Your task to perform on an android device: Go to Amazon Image 0: 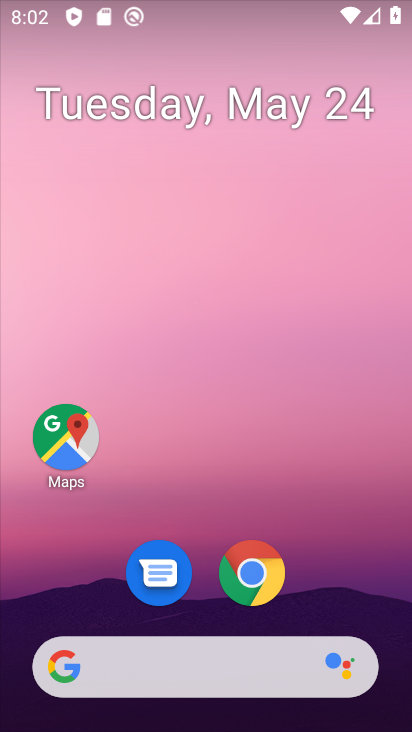
Step 0: click (253, 576)
Your task to perform on an android device: Go to Amazon Image 1: 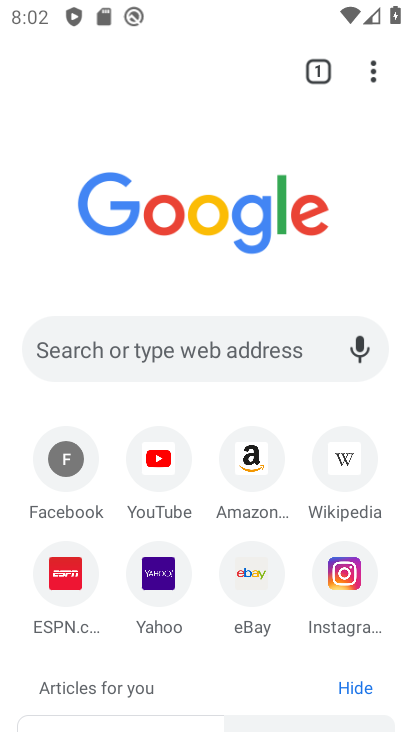
Step 1: click (251, 494)
Your task to perform on an android device: Go to Amazon Image 2: 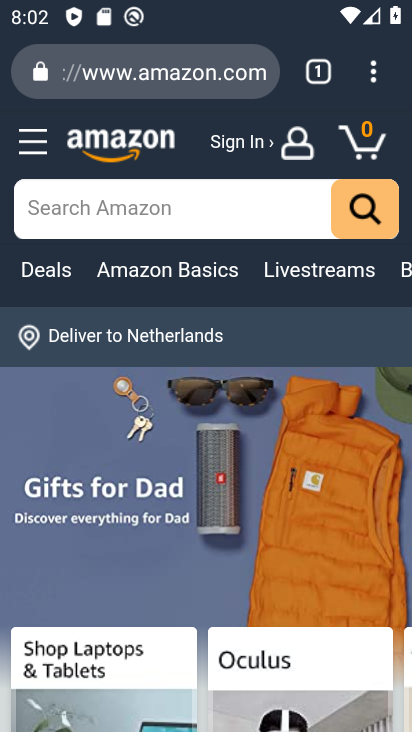
Step 2: task complete